Your task to perform on an android device: Open Chrome and go to settings Image 0: 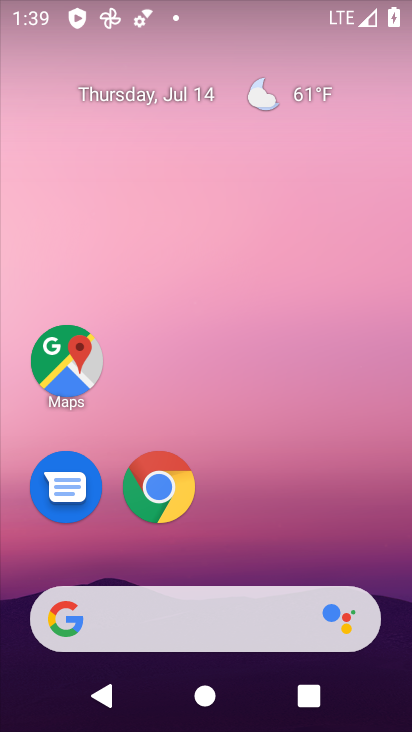
Step 0: drag from (341, 531) to (319, 66)
Your task to perform on an android device: Open Chrome and go to settings Image 1: 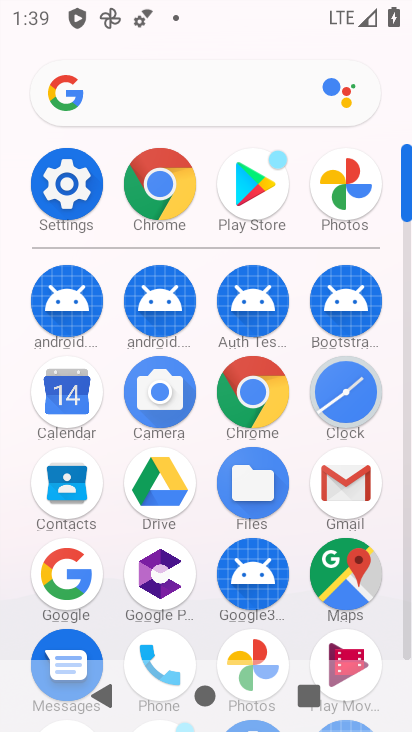
Step 1: click (271, 400)
Your task to perform on an android device: Open Chrome and go to settings Image 2: 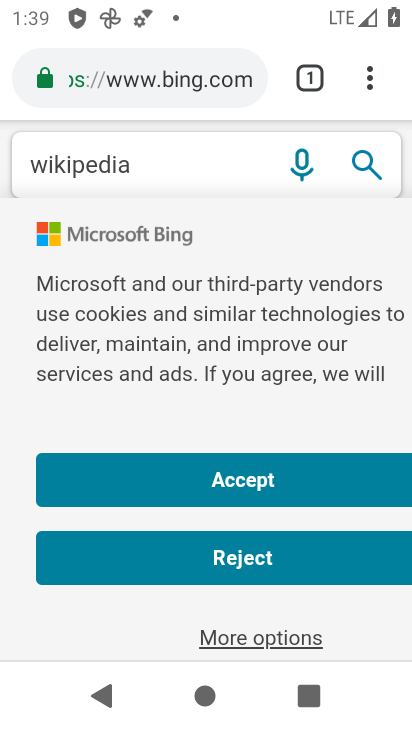
Step 2: click (371, 77)
Your task to perform on an android device: Open Chrome and go to settings Image 3: 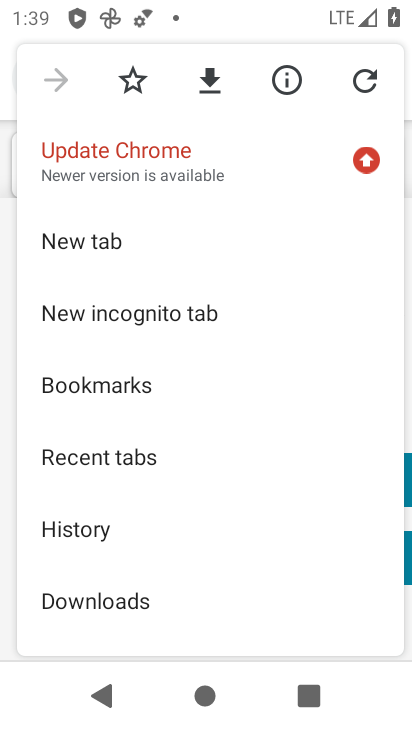
Step 3: drag from (306, 415) to (294, 311)
Your task to perform on an android device: Open Chrome and go to settings Image 4: 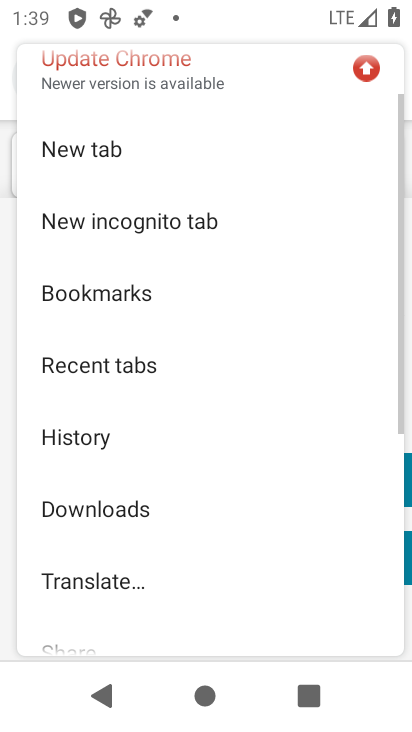
Step 4: drag from (302, 414) to (298, 327)
Your task to perform on an android device: Open Chrome and go to settings Image 5: 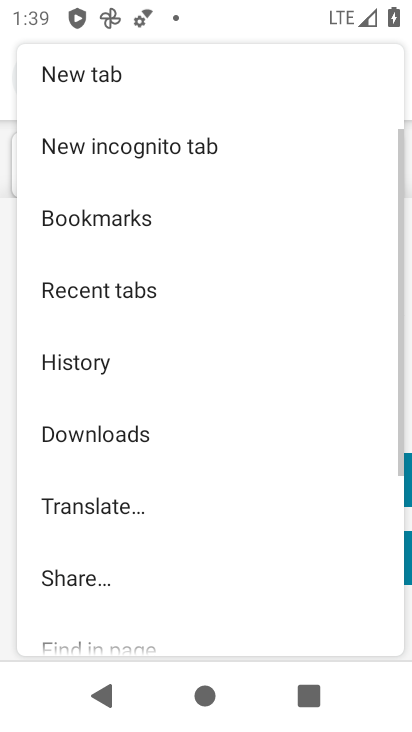
Step 5: drag from (301, 374) to (300, 307)
Your task to perform on an android device: Open Chrome and go to settings Image 6: 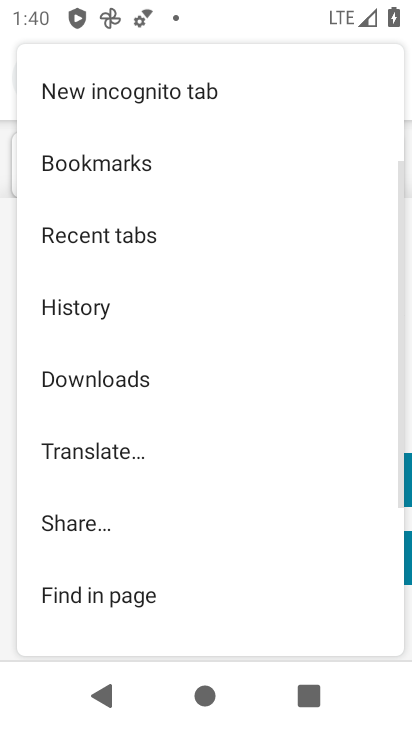
Step 6: drag from (301, 405) to (300, 309)
Your task to perform on an android device: Open Chrome and go to settings Image 7: 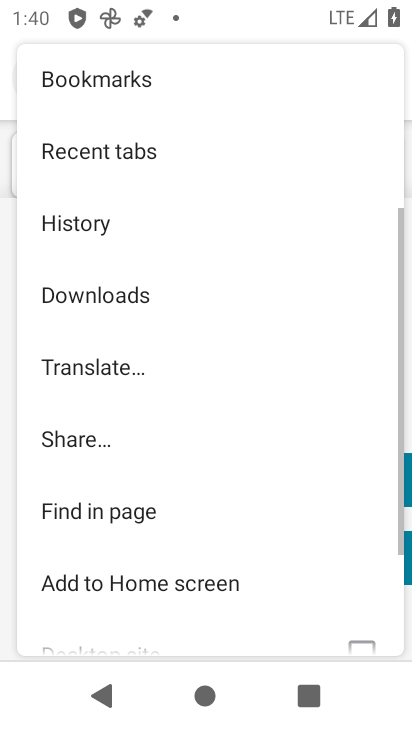
Step 7: drag from (290, 395) to (290, 332)
Your task to perform on an android device: Open Chrome and go to settings Image 8: 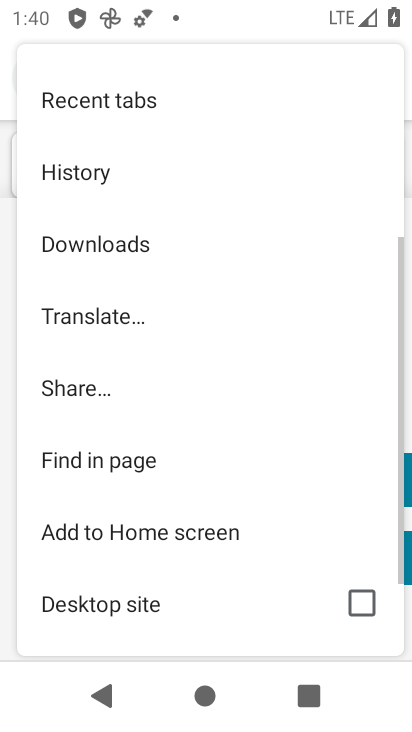
Step 8: drag from (289, 419) to (294, 320)
Your task to perform on an android device: Open Chrome and go to settings Image 9: 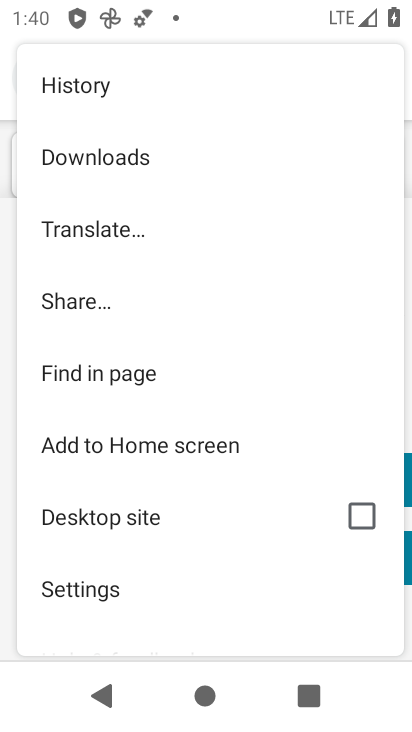
Step 9: drag from (291, 394) to (288, 299)
Your task to perform on an android device: Open Chrome and go to settings Image 10: 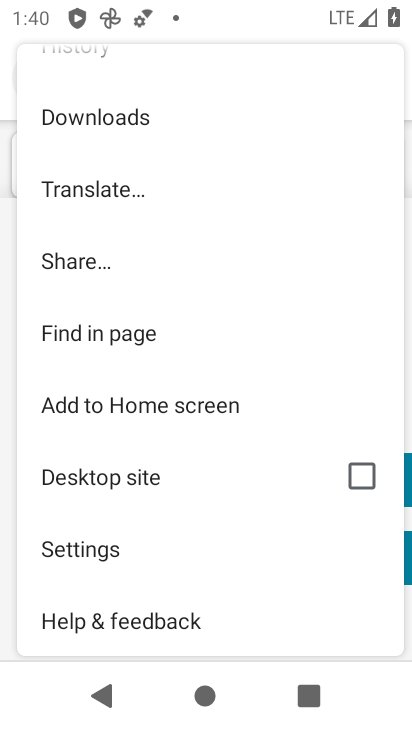
Step 10: click (133, 559)
Your task to perform on an android device: Open Chrome and go to settings Image 11: 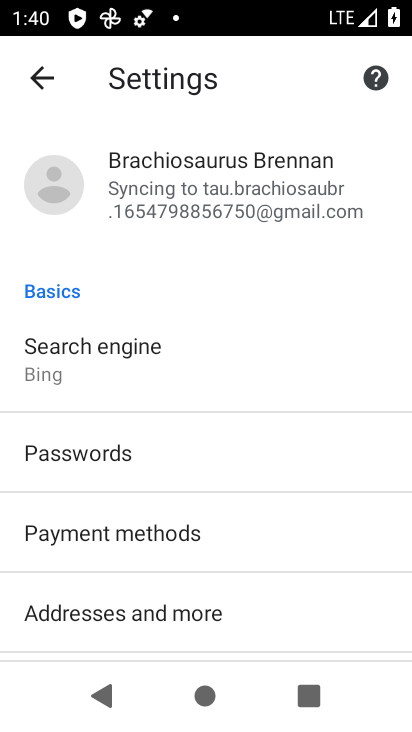
Step 11: task complete